Your task to perform on an android device: Open Chrome and go to the settings page Image 0: 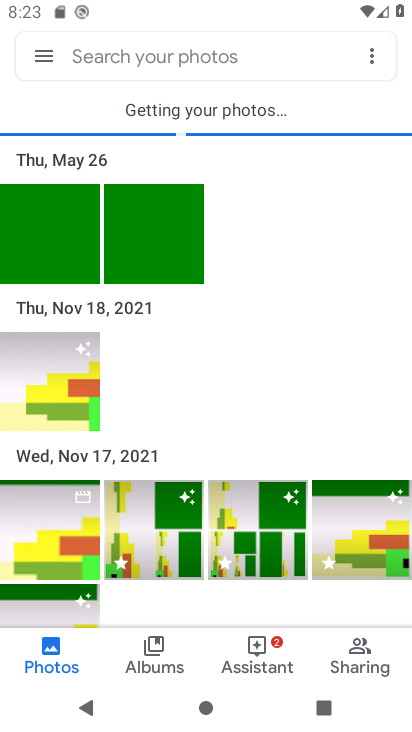
Step 0: press home button
Your task to perform on an android device: Open Chrome and go to the settings page Image 1: 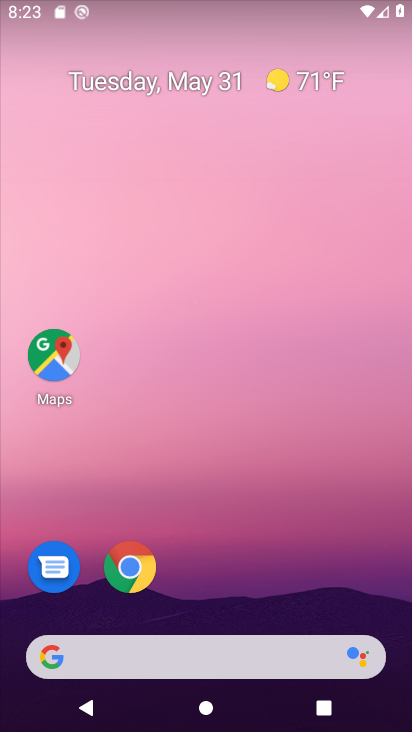
Step 1: click (120, 571)
Your task to perform on an android device: Open Chrome and go to the settings page Image 2: 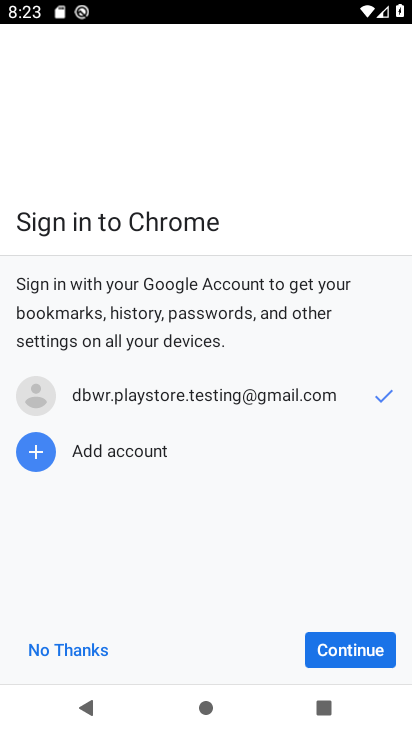
Step 2: click (337, 655)
Your task to perform on an android device: Open Chrome and go to the settings page Image 3: 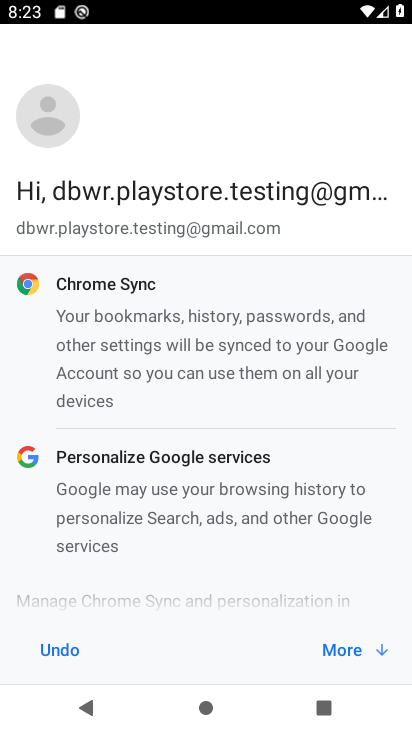
Step 3: click (335, 651)
Your task to perform on an android device: Open Chrome and go to the settings page Image 4: 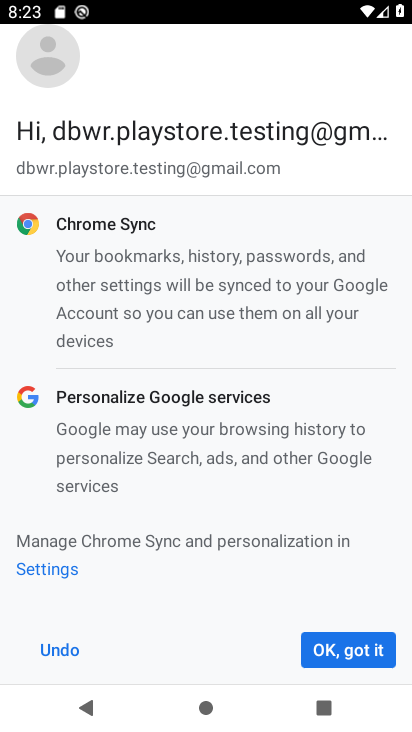
Step 4: click (320, 650)
Your task to perform on an android device: Open Chrome and go to the settings page Image 5: 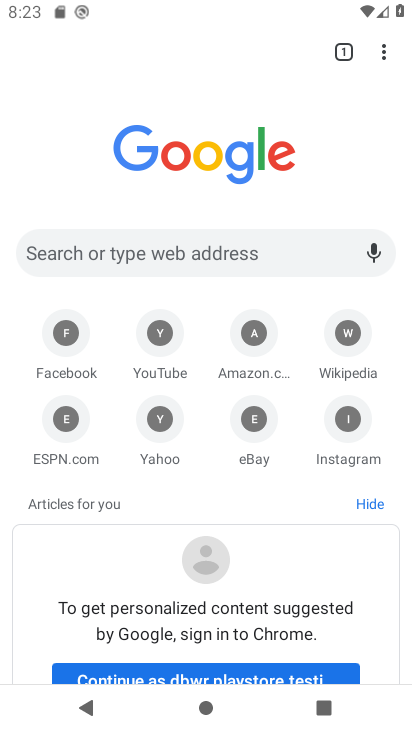
Step 5: click (399, 57)
Your task to perform on an android device: Open Chrome and go to the settings page Image 6: 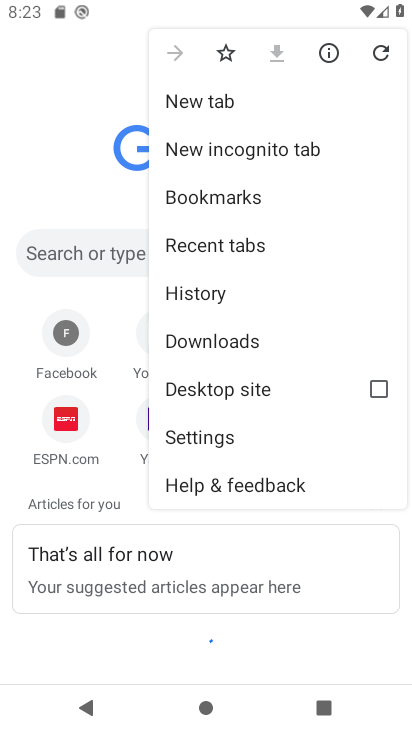
Step 6: click (249, 431)
Your task to perform on an android device: Open Chrome and go to the settings page Image 7: 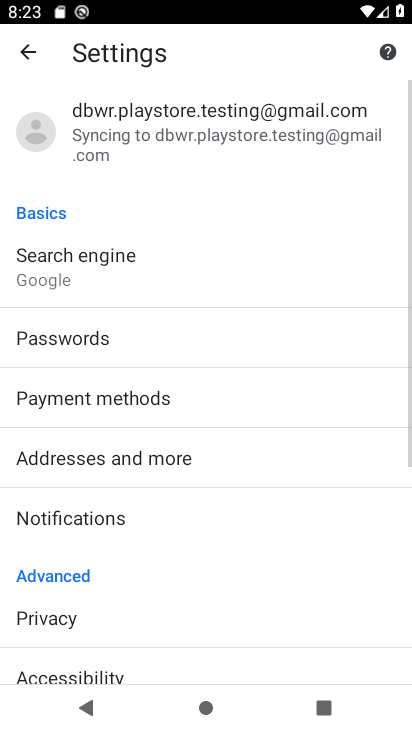
Step 7: task complete